Your task to perform on an android device: Show me the alarms in the clock app Image 0: 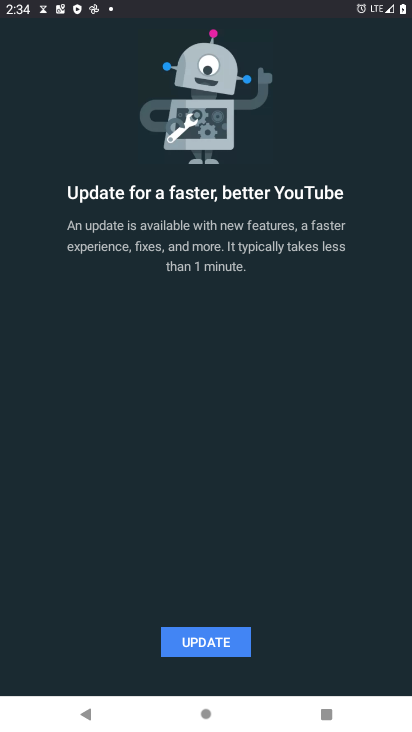
Step 0: press home button
Your task to perform on an android device: Show me the alarms in the clock app Image 1: 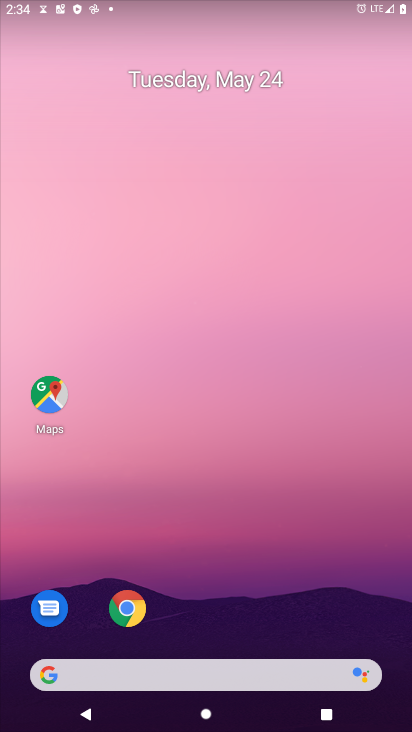
Step 1: drag from (268, 681) to (224, 138)
Your task to perform on an android device: Show me the alarms in the clock app Image 2: 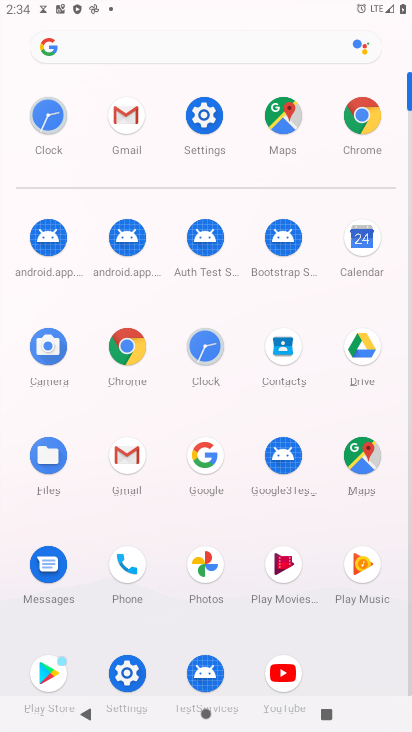
Step 2: click (49, 114)
Your task to perform on an android device: Show me the alarms in the clock app Image 3: 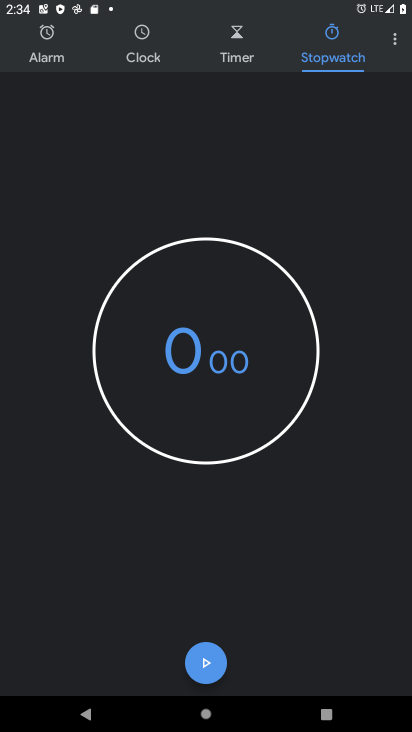
Step 3: click (62, 59)
Your task to perform on an android device: Show me the alarms in the clock app Image 4: 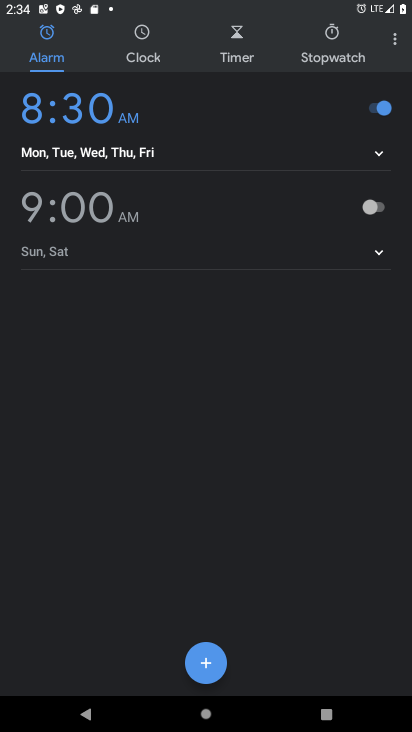
Step 4: click (325, 353)
Your task to perform on an android device: Show me the alarms in the clock app Image 5: 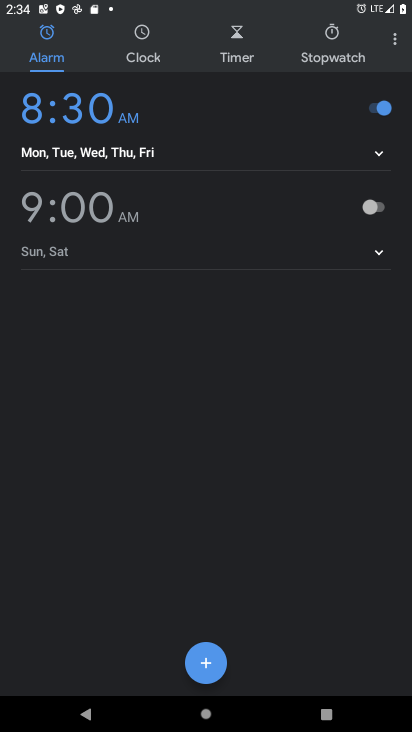
Step 5: task complete